Your task to perform on an android device: turn on data saver in the chrome app Image 0: 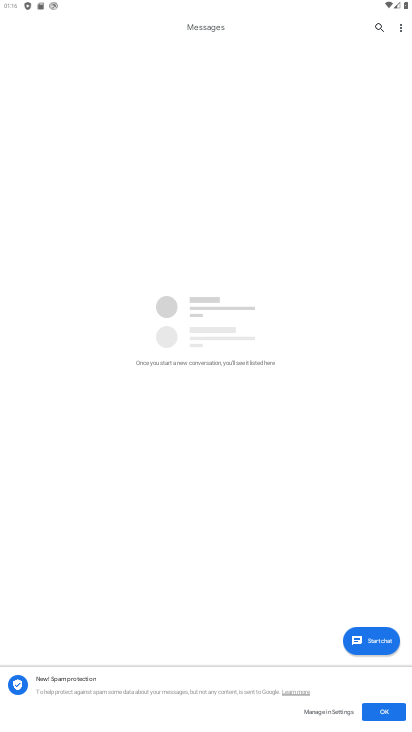
Step 0: click (368, 622)
Your task to perform on an android device: turn on data saver in the chrome app Image 1: 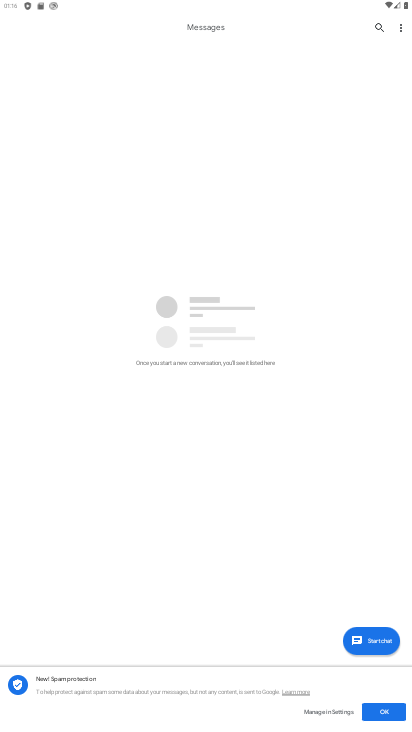
Step 1: press home button
Your task to perform on an android device: turn on data saver in the chrome app Image 2: 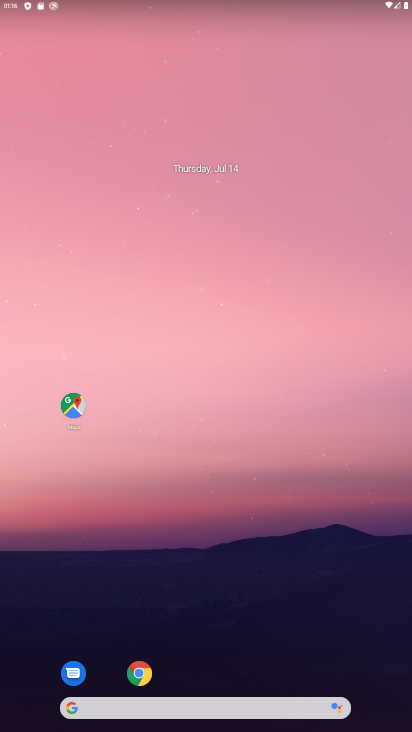
Step 2: click (157, 671)
Your task to perform on an android device: turn on data saver in the chrome app Image 3: 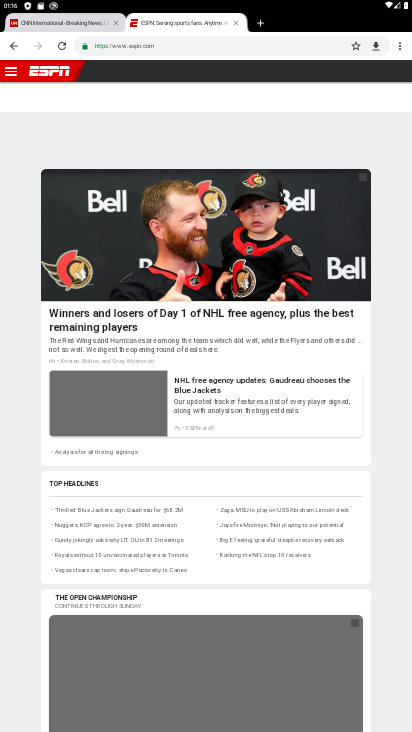
Step 3: click (398, 39)
Your task to perform on an android device: turn on data saver in the chrome app Image 4: 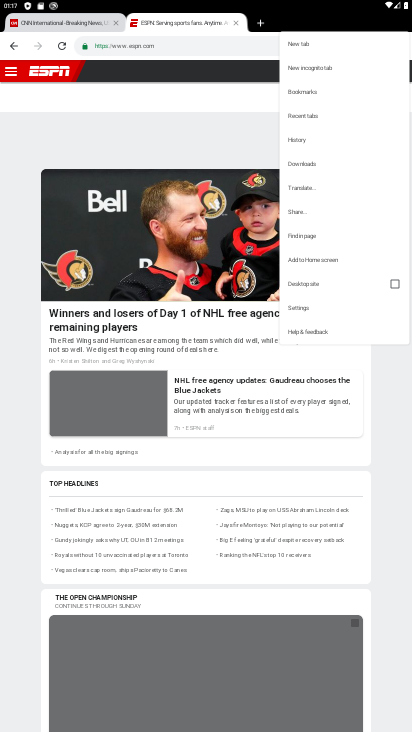
Step 4: click (314, 304)
Your task to perform on an android device: turn on data saver in the chrome app Image 5: 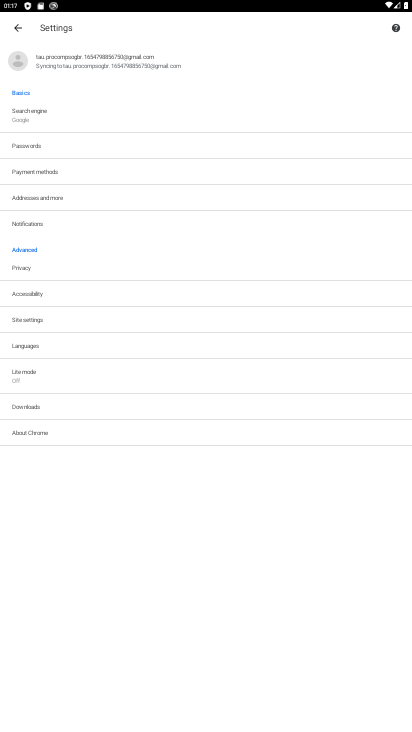
Step 5: click (98, 385)
Your task to perform on an android device: turn on data saver in the chrome app Image 6: 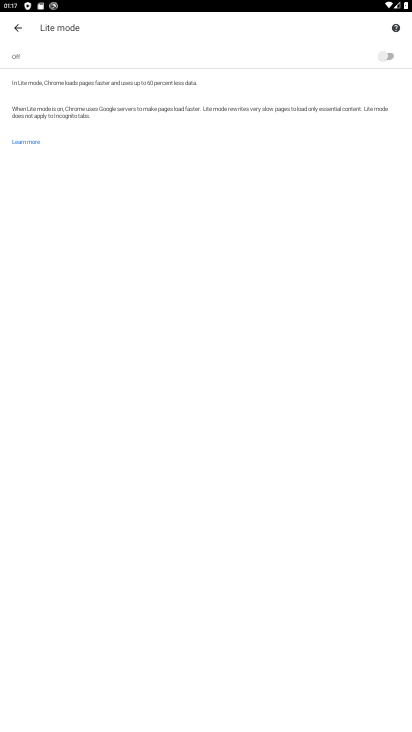
Step 6: click (391, 65)
Your task to perform on an android device: turn on data saver in the chrome app Image 7: 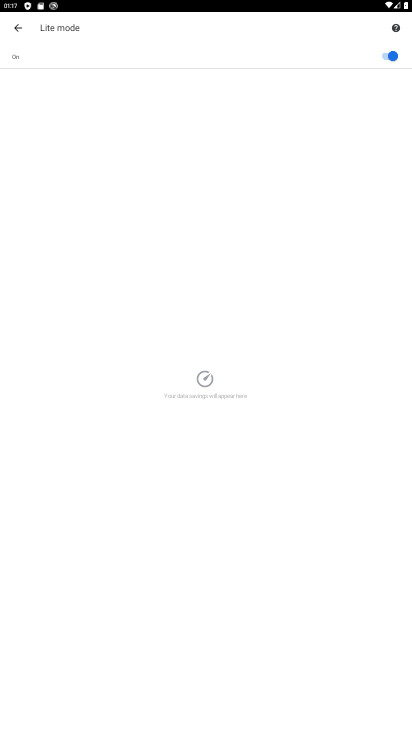
Step 7: task complete